Your task to perform on an android device: turn on data saver in the chrome app Image 0: 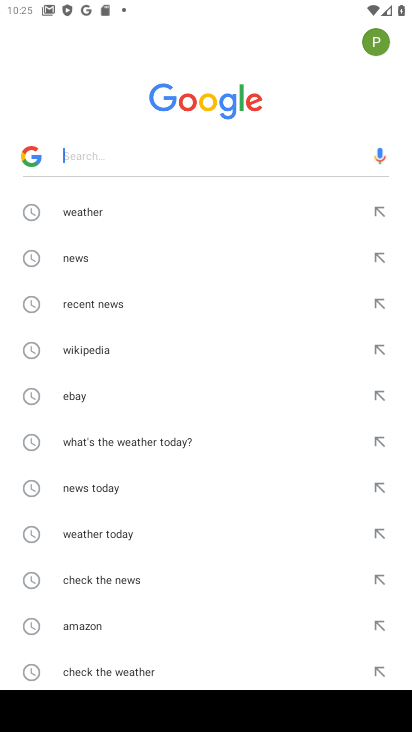
Step 0: click (160, 44)
Your task to perform on an android device: turn on data saver in the chrome app Image 1: 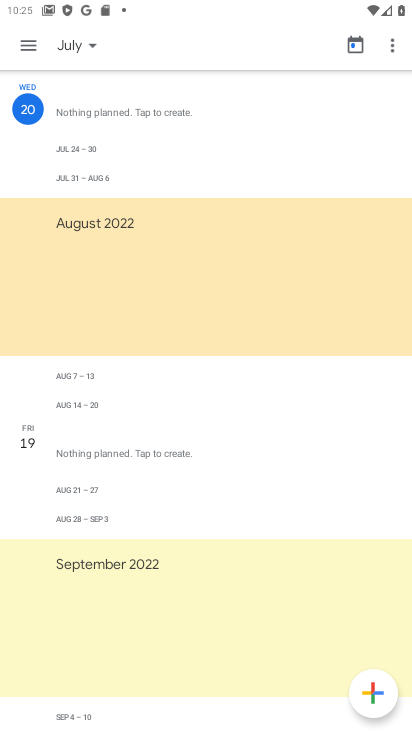
Step 1: press back button
Your task to perform on an android device: turn on data saver in the chrome app Image 2: 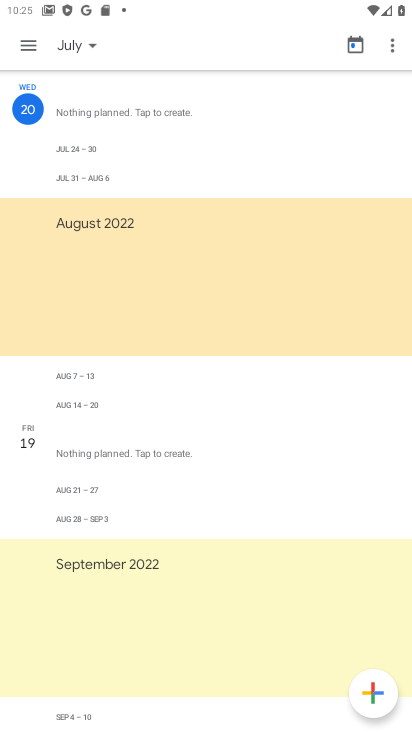
Step 2: press home button
Your task to perform on an android device: turn on data saver in the chrome app Image 3: 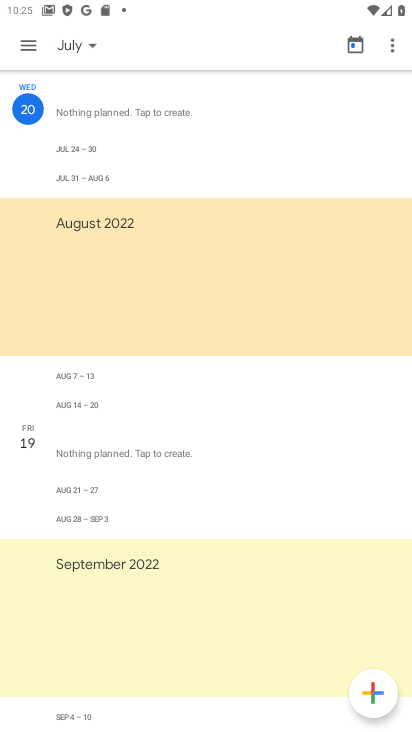
Step 3: drag from (215, 519) to (236, 138)
Your task to perform on an android device: turn on data saver in the chrome app Image 4: 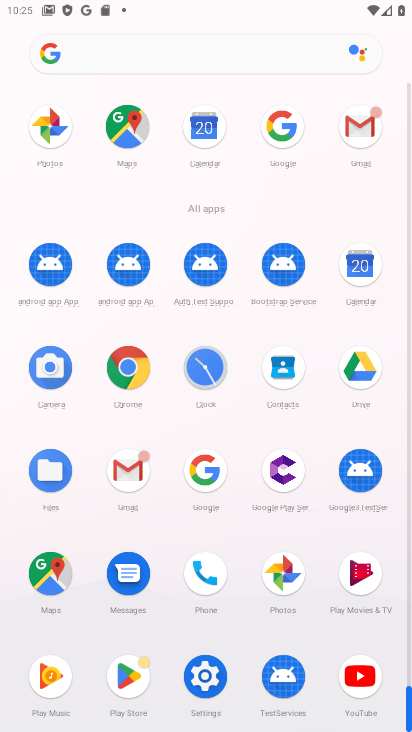
Step 4: click (124, 371)
Your task to perform on an android device: turn on data saver in the chrome app Image 5: 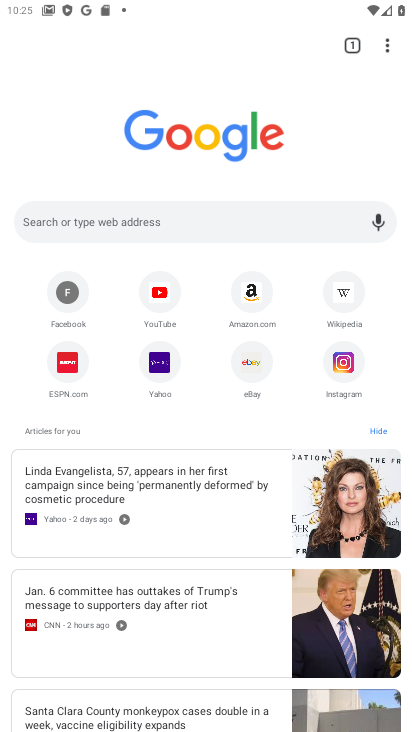
Step 5: drag from (387, 42) to (262, 384)
Your task to perform on an android device: turn on data saver in the chrome app Image 6: 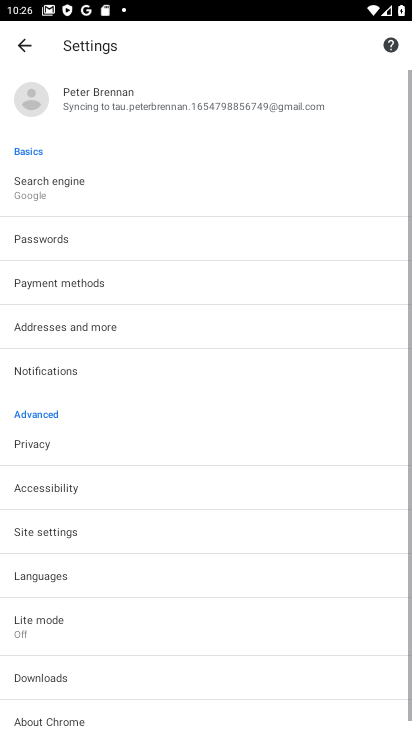
Step 6: drag from (161, 538) to (206, 102)
Your task to perform on an android device: turn on data saver in the chrome app Image 7: 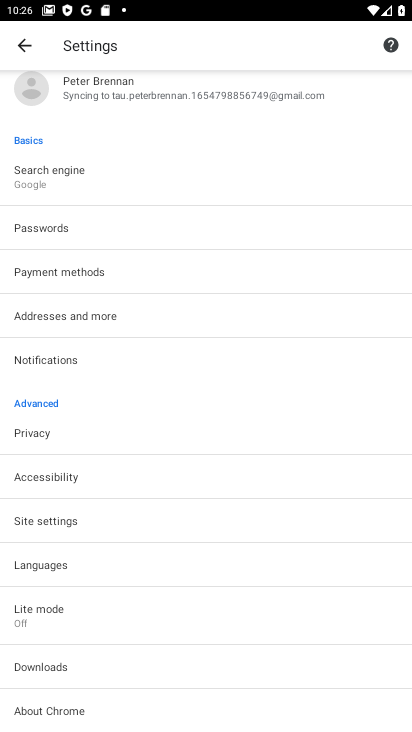
Step 7: click (66, 616)
Your task to perform on an android device: turn on data saver in the chrome app Image 8: 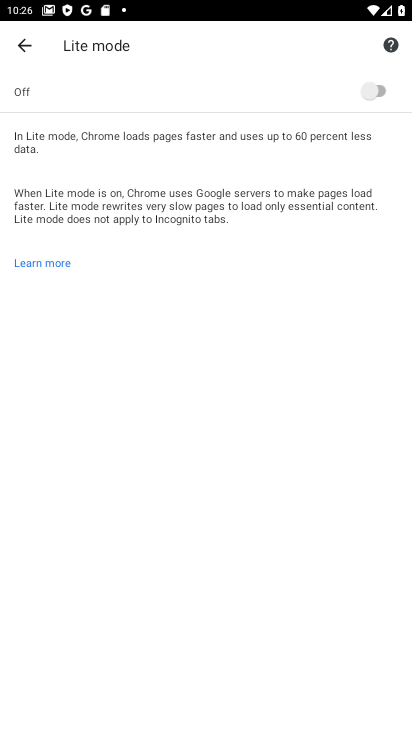
Step 8: click (365, 84)
Your task to perform on an android device: turn on data saver in the chrome app Image 9: 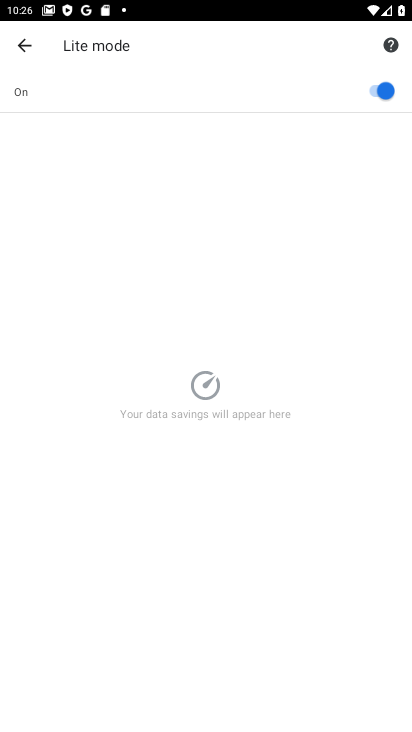
Step 9: task complete